Your task to perform on an android device: Open Chrome and go to the settings page Image 0: 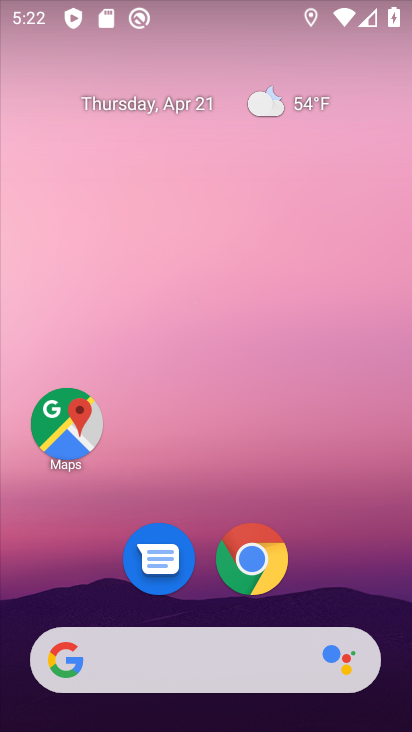
Step 0: drag from (307, 551) to (317, 90)
Your task to perform on an android device: Open Chrome and go to the settings page Image 1: 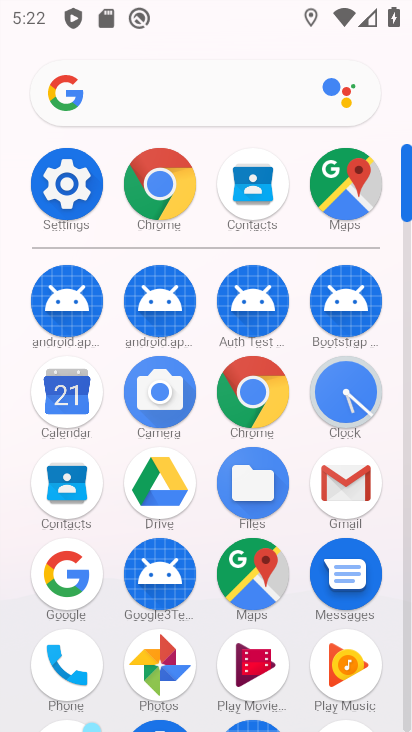
Step 1: click (70, 193)
Your task to perform on an android device: Open Chrome and go to the settings page Image 2: 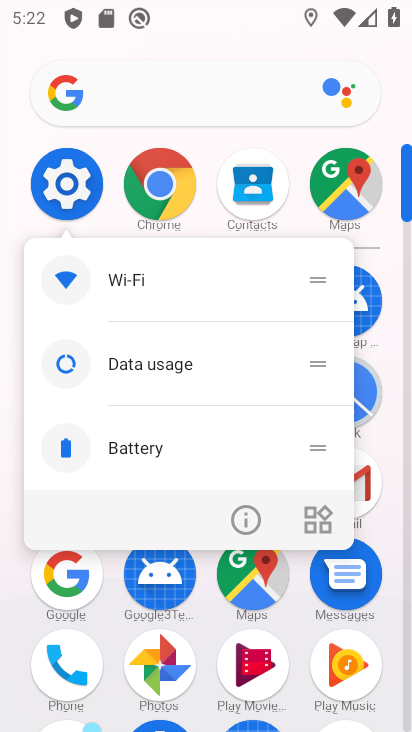
Step 2: click (71, 193)
Your task to perform on an android device: Open Chrome and go to the settings page Image 3: 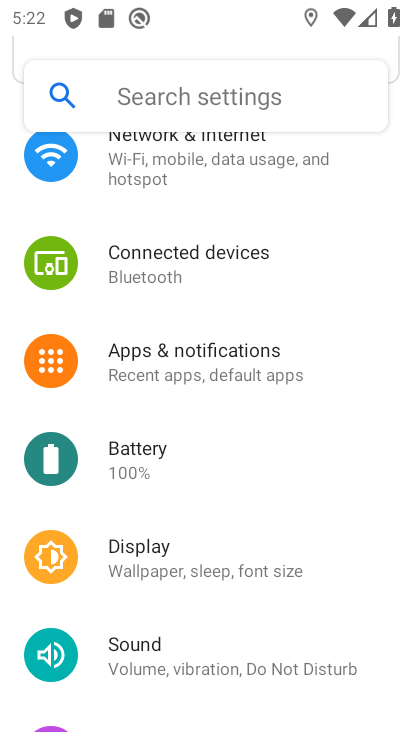
Step 3: press back button
Your task to perform on an android device: Open Chrome and go to the settings page Image 4: 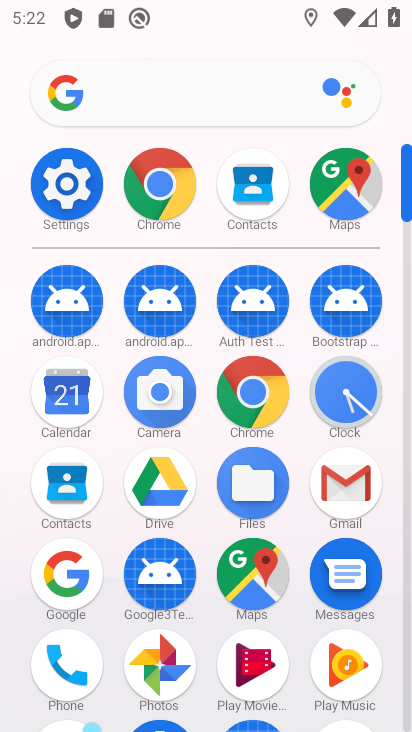
Step 4: click (184, 200)
Your task to perform on an android device: Open Chrome and go to the settings page Image 5: 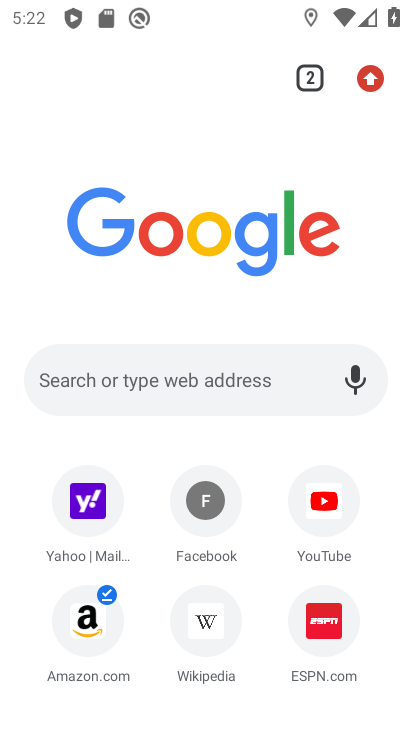
Step 5: click (369, 87)
Your task to perform on an android device: Open Chrome and go to the settings page Image 6: 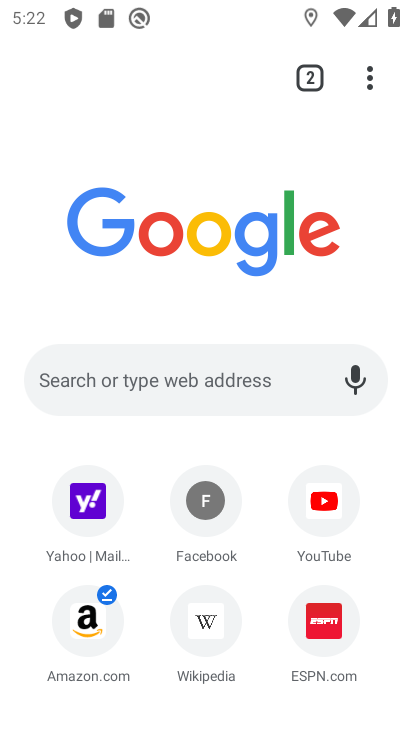
Step 6: task complete